Your task to perform on an android device: choose inbox layout in the gmail app Image 0: 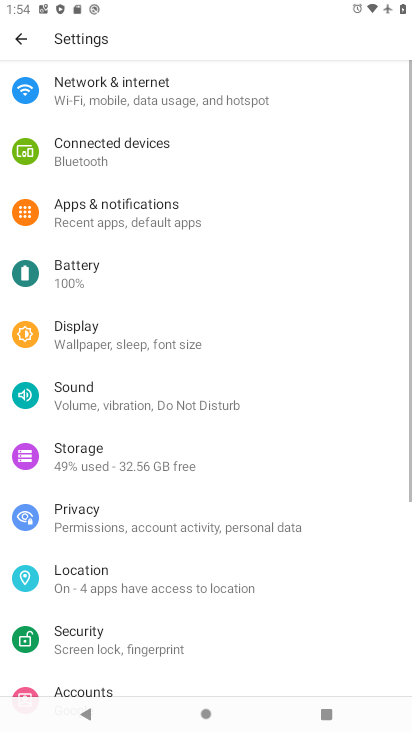
Step 0: press home button
Your task to perform on an android device: choose inbox layout in the gmail app Image 1: 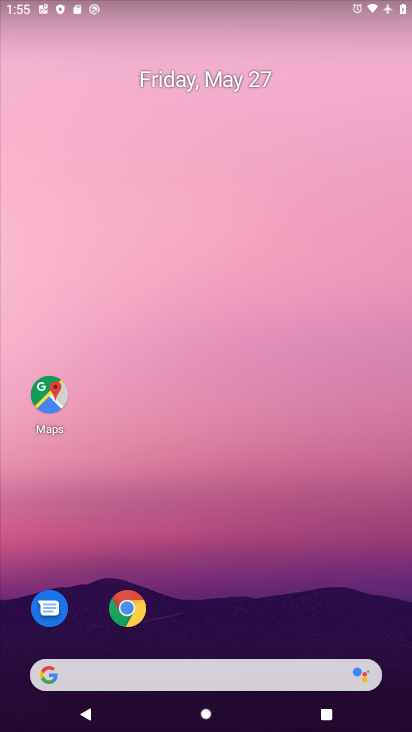
Step 1: drag from (192, 675) to (326, 210)
Your task to perform on an android device: choose inbox layout in the gmail app Image 2: 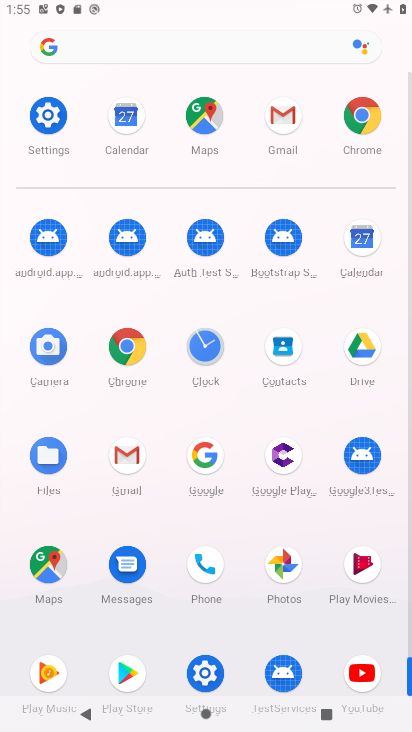
Step 2: click (285, 119)
Your task to perform on an android device: choose inbox layout in the gmail app Image 3: 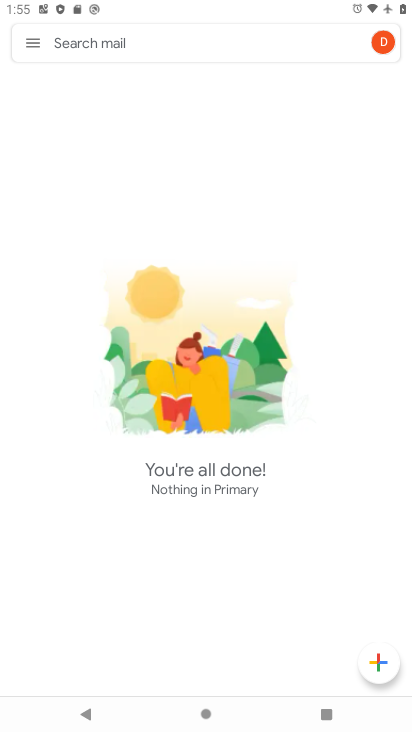
Step 3: click (30, 46)
Your task to perform on an android device: choose inbox layout in the gmail app Image 4: 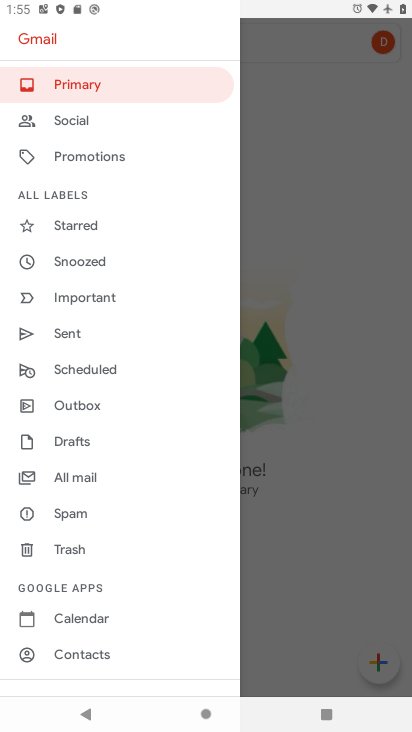
Step 4: drag from (129, 586) to (240, 170)
Your task to perform on an android device: choose inbox layout in the gmail app Image 5: 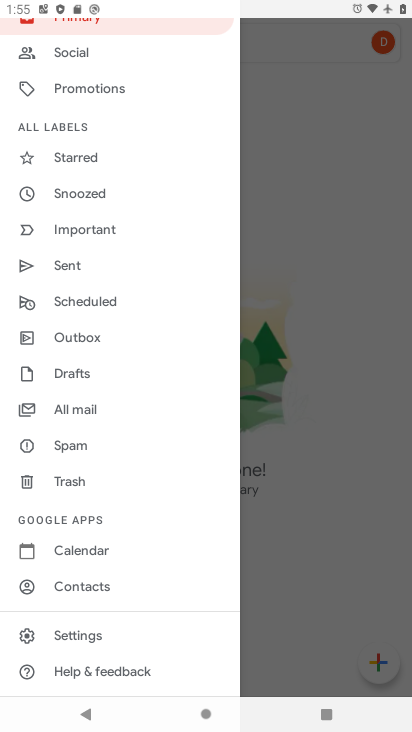
Step 5: click (75, 640)
Your task to perform on an android device: choose inbox layout in the gmail app Image 6: 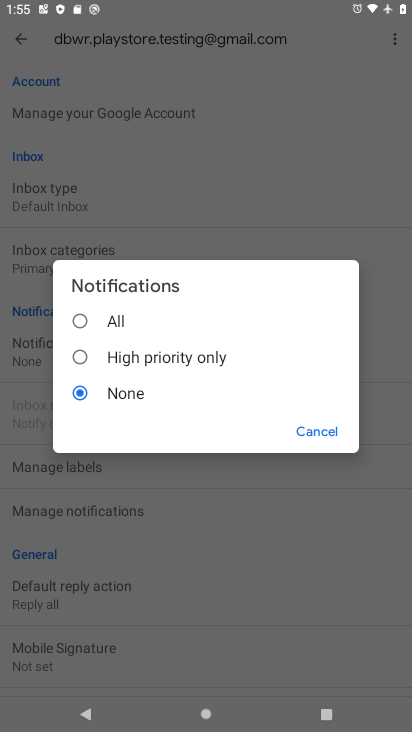
Step 6: click (303, 433)
Your task to perform on an android device: choose inbox layout in the gmail app Image 7: 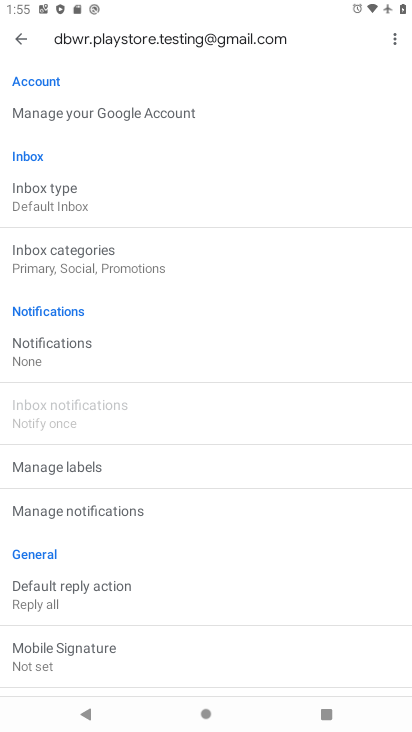
Step 7: click (77, 203)
Your task to perform on an android device: choose inbox layout in the gmail app Image 8: 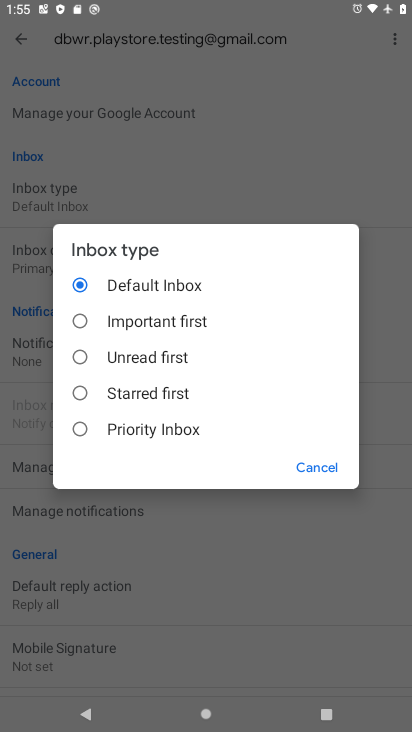
Step 8: click (79, 353)
Your task to perform on an android device: choose inbox layout in the gmail app Image 9: 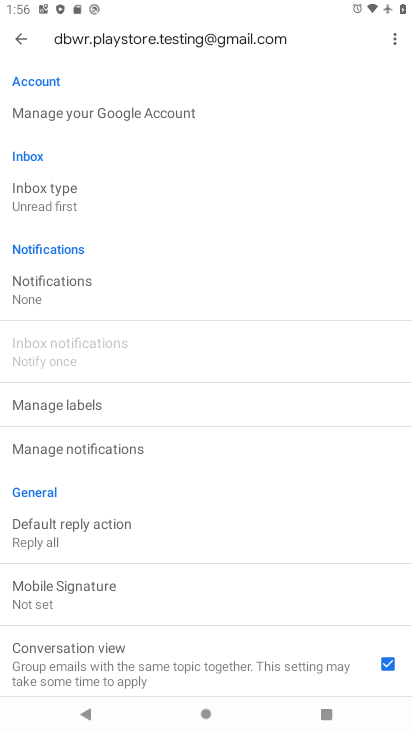
Step 9: task complete